Your task to perform on an android device: snooze an email in the gmail app Image 0: 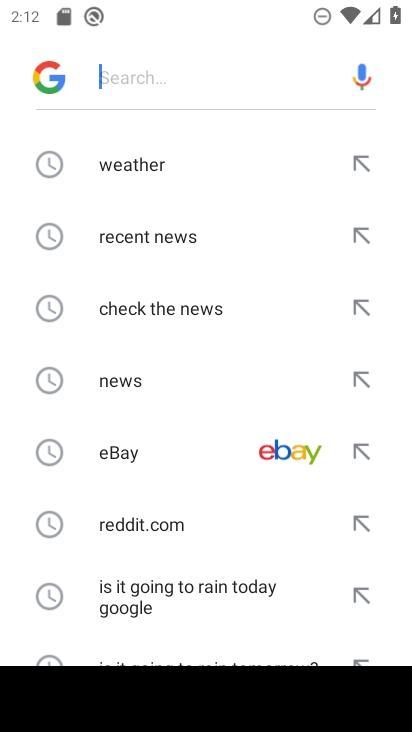
Step 0: click (92, 721)
Your task to perform on an android device: snooze an email in the gmail app Image 1: 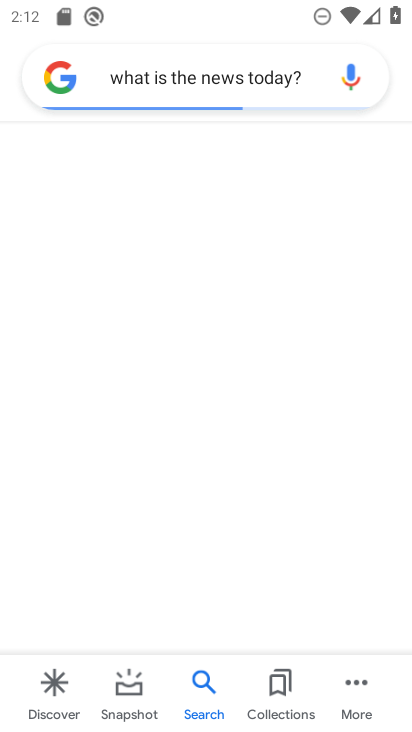
Step 1: drag from (220, 570) to (256, 289)
Your task to perform on an android device: snooze an email in the gmail app Image 2: 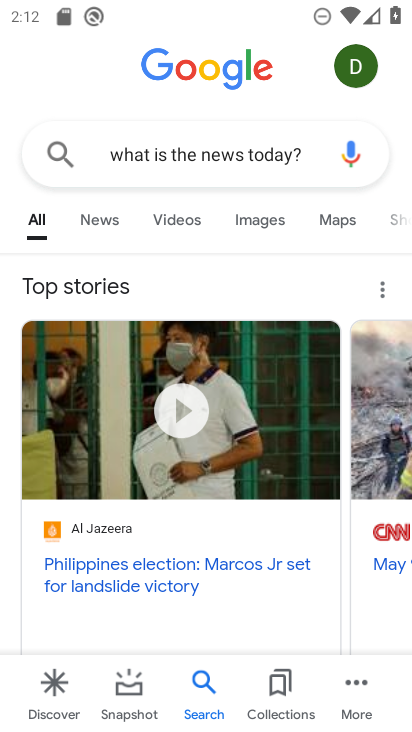
Step 2: drag from (229, 584) to (231, 376)
Your task to perform on an android device: snooze an email in the gmail app Image 3: 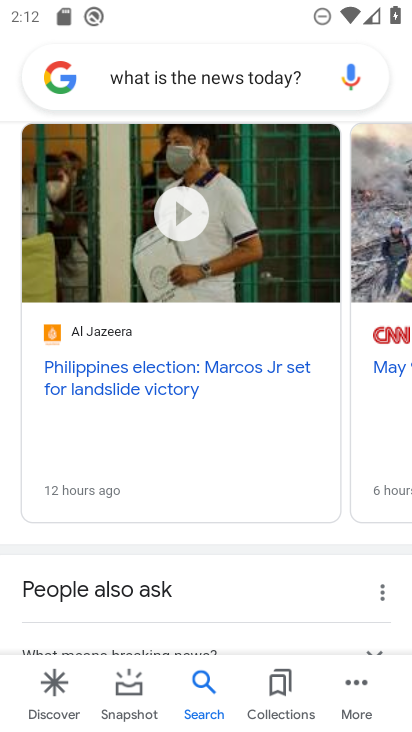
Step 3: drag from (275, 135) to (369, 657)
Your task to perform on an android device: snooze an email in the gmail app Image 4: 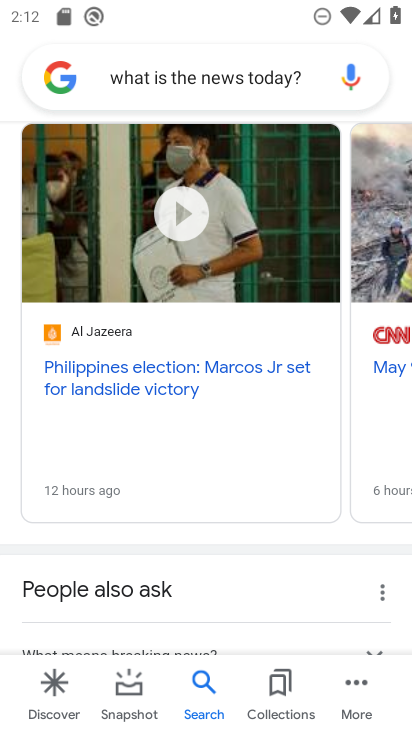
Step 4: press home button
Your task to perform on an android device: snooze an email in the gmail app Image 5: 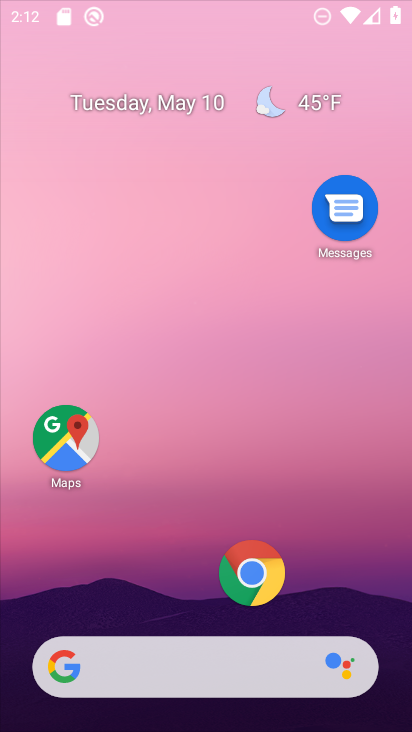
Step 5: drag from (225, 598) to (310, 155)
Your task to perform on an android device: snooze an email in the gmail app Image 6: 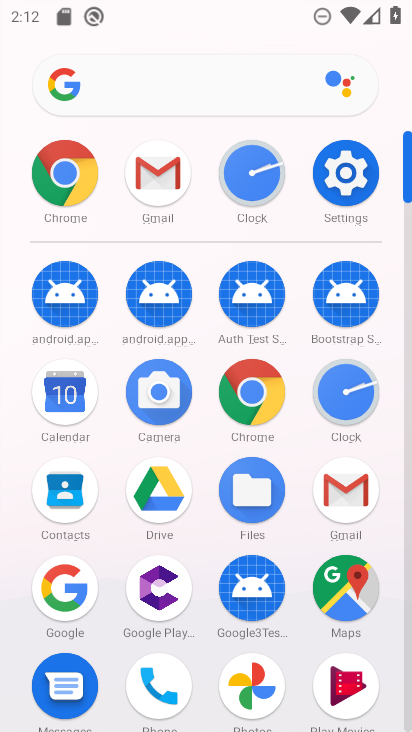
Step 6: drag from (196, 614) to (192, 263)
Your task to perform on an android device: snooze an email in the gmail app Image 7: 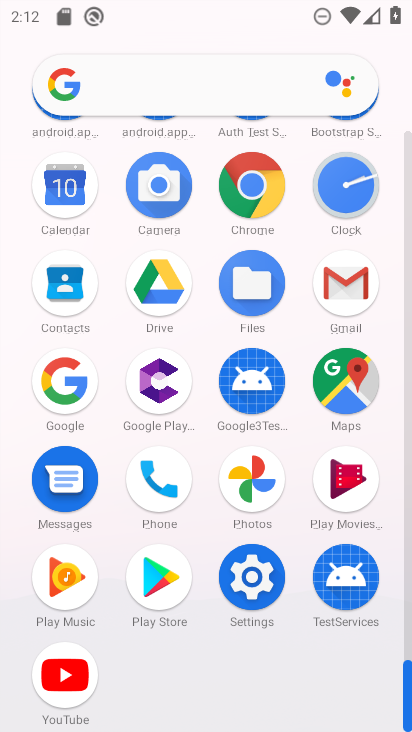
Step 7: click (350, 289)
Your task to perform on an android device: snooze an email in the gmail app Image 8: 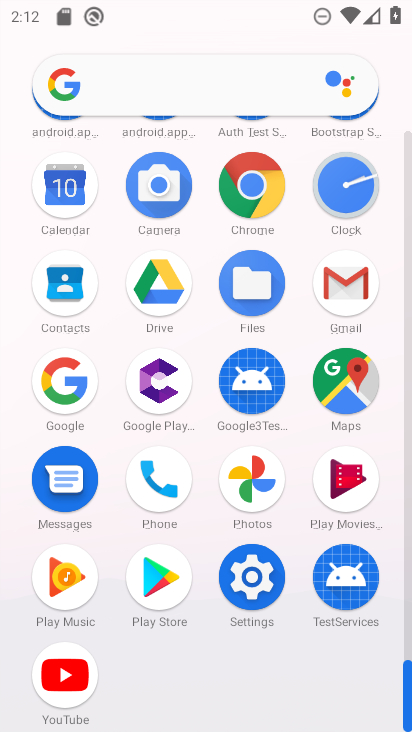
Step 8: click (350, 289)
Your task to perform on an android device: snooze an email in the gmail app Image 9: 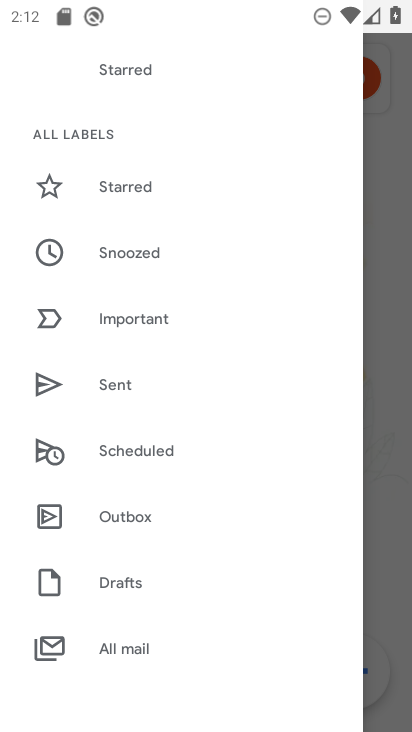
Step 9: drag from (136, 587) to (218, 200)
Your task to perform on an android device: snooze an email in the gmail app Image 10: 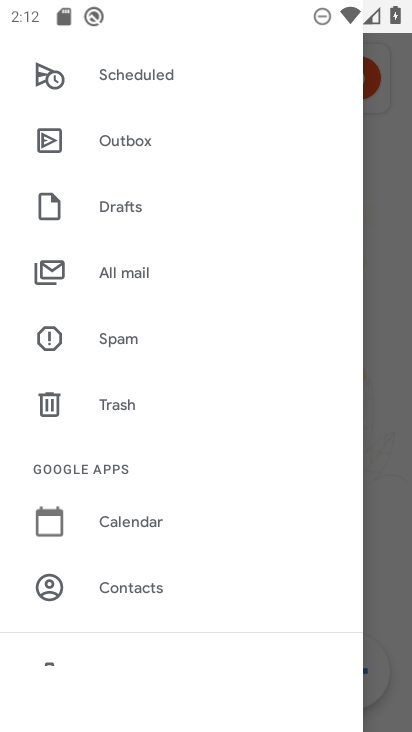
Step 10: drag from (141, 504) to (187, 232)
Your task to perform on an android device: snooze an email in the gmail app Image 11: 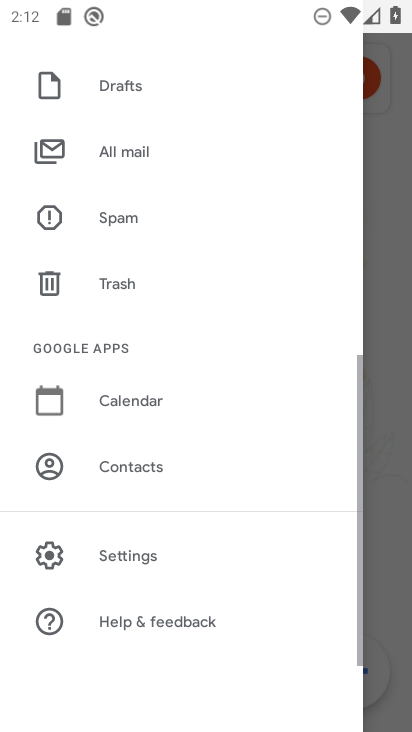
Step 11: click (140, 553)
Your task to perform on an android device: snooze an email in the gmail app Image 12: 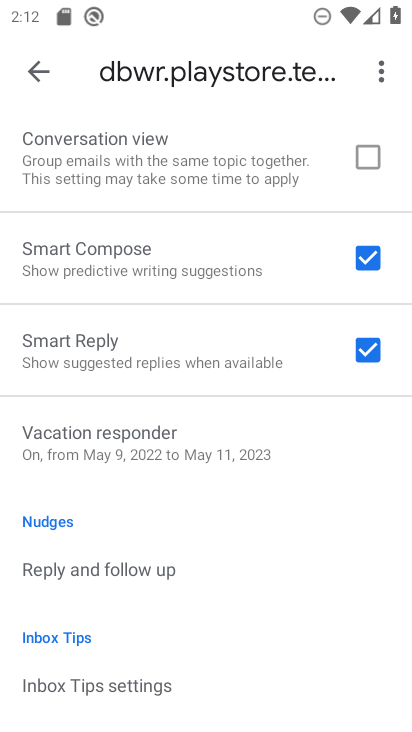
Step 12: drag from (147, 647) to (203, 213)
Your task to perform on an android device: snooze an email in the gmail app Image 13: 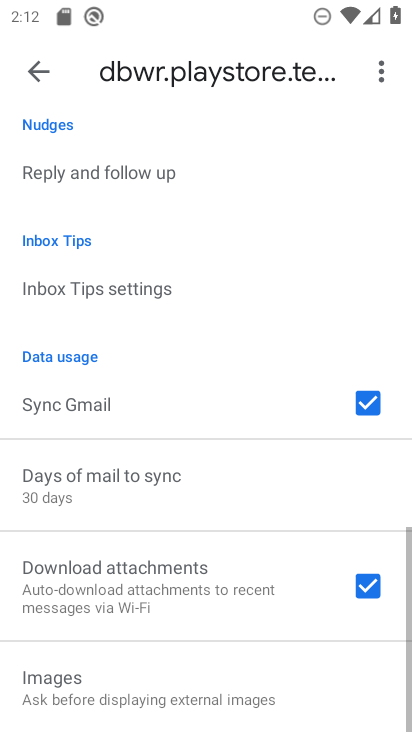
Step 13: drag from (162, 608) to (230, 268)
Your task to perform on an android device: snooze an email in the gmail app Image 14: 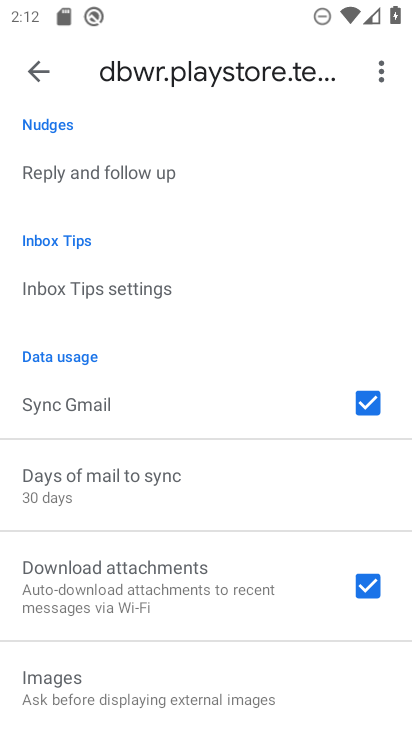
Step 14: drag from (149, 576) to (195, 317)
Your task to perform on an android device: snooze an email in the gmail app Image 15: 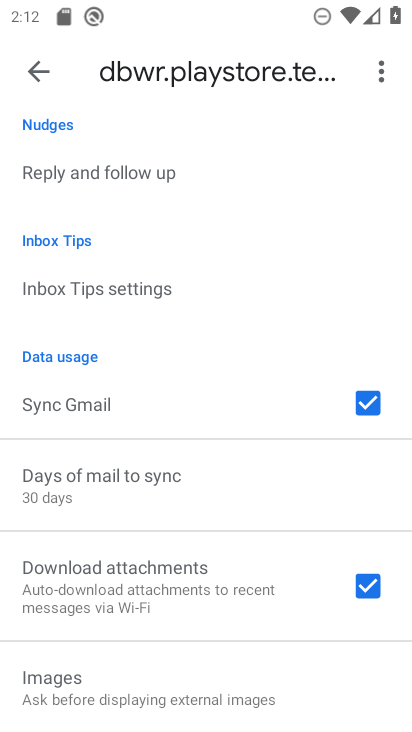
Step 15: drag from (138, 586) to (166, 300)
Your task to perform on an android device: snooze an email in the gmail app Image 16: 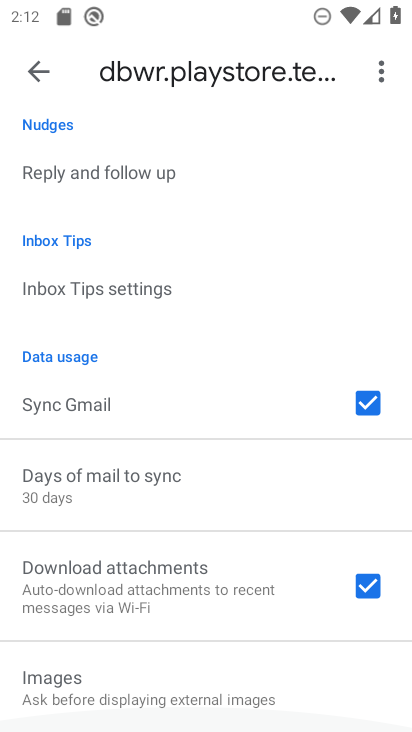
Step 16: drag from (188, 228) to (162, 625)
Your task to perform on an android device: snooze an email in the gmail app Image 17: 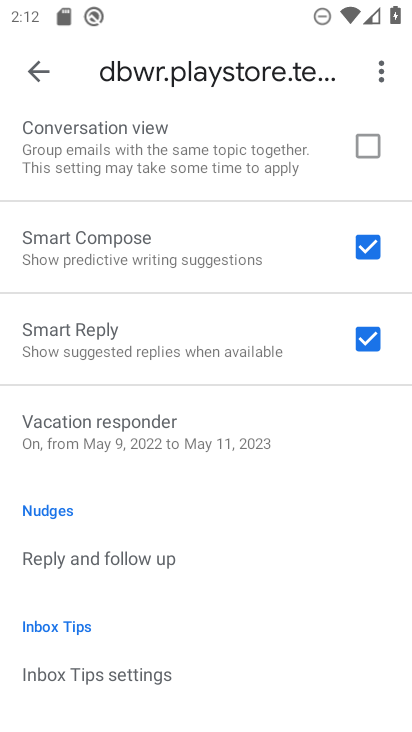
Step 17: drag from (159, 505) to (303, 165)
Your task to perform on an android device: snooze an email in the gmail app Image 18: 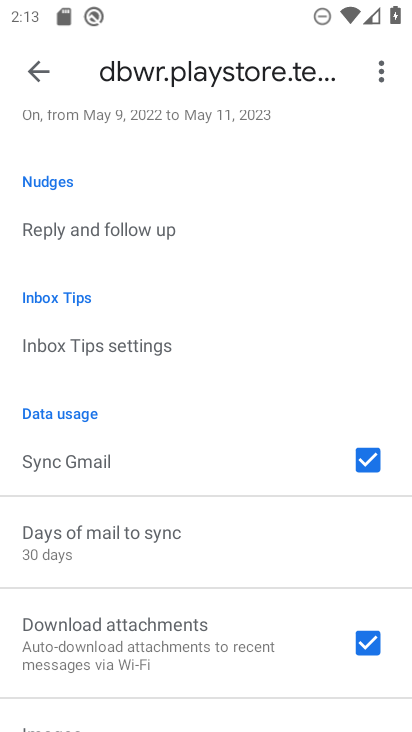
Step 18: drag from (254, 195) to (232, 718)
Your task to perform on an android device: snooze an email in the gmail app Image 19: 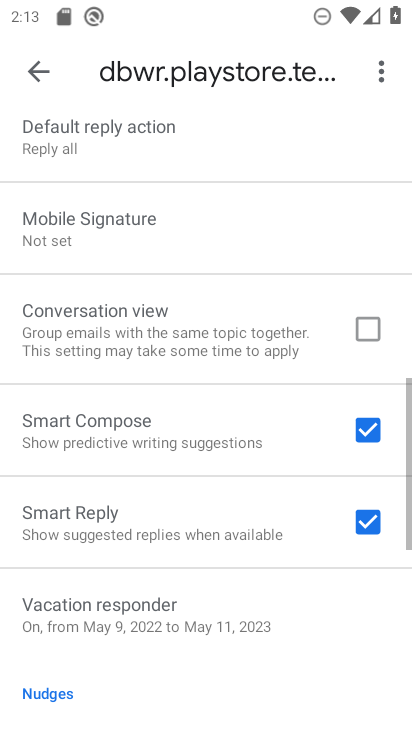
Step 19: drag from (228, 220) to (229, 624)
Your task to perform on an android device: snooze an email in the gmail app Image 20: 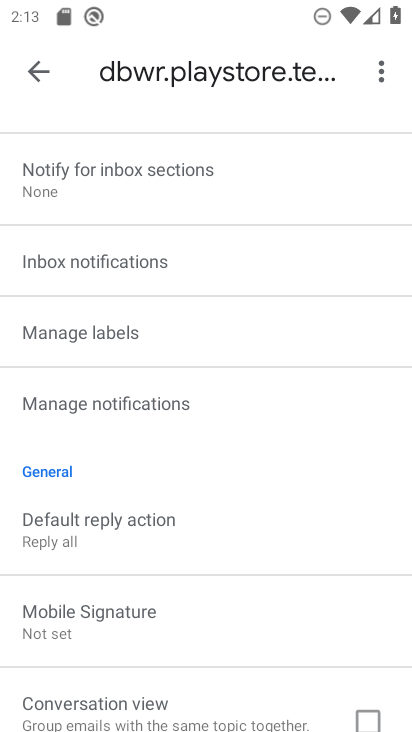
Step 20: drag from (181, 320) to (207, 723)
Your task to perform on an android device: snooze an email in the gmail app Image 21: 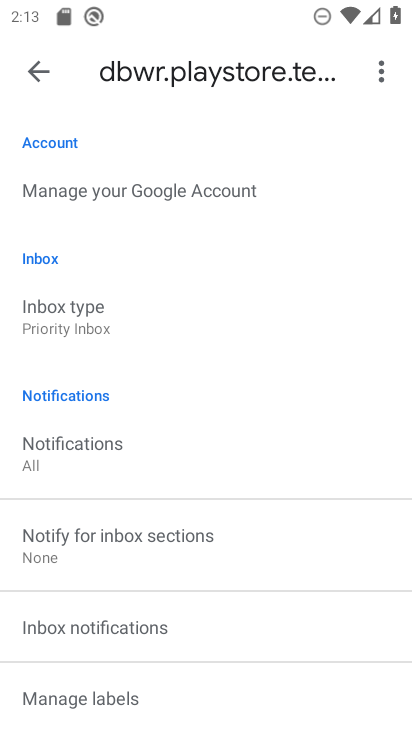
Step 21: drag from (149, 369) to (198, 653)
Your task to perform on an android device: snooze an email in the gmail app Image 22: 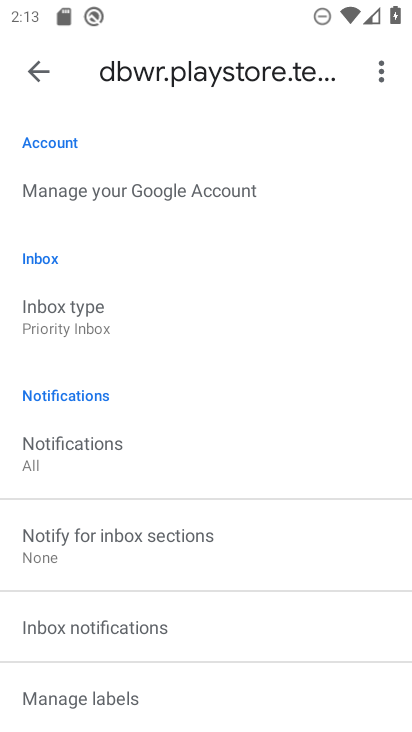
Step 22: drag from (144, 671) to (184, 357)
Your task to perform on an android device: snooze an email in the gmail app Image 23: 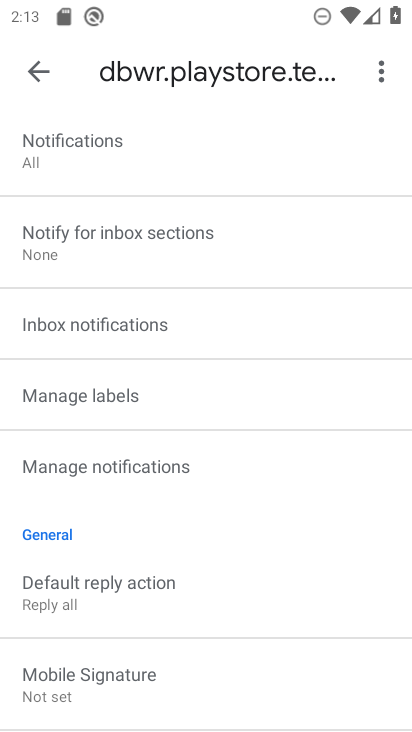
Step 23: click (31, 85)
Your task to perform on an android device: snooze an email in the gmail app Image 24: 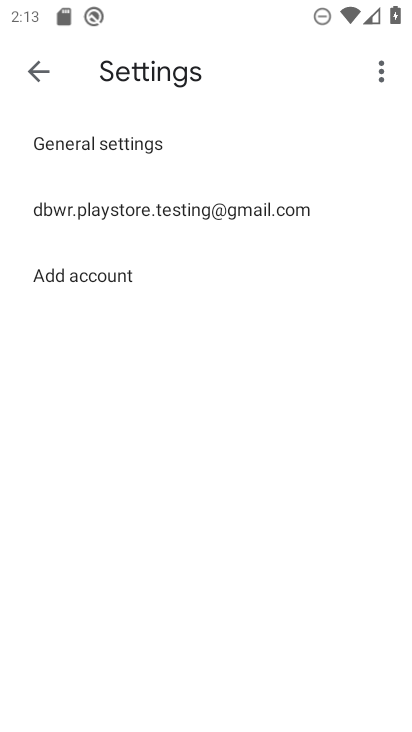
Step 24: click (46, 83)
Your task to perform on an android device: snooze an email in the gmail app Image 25: 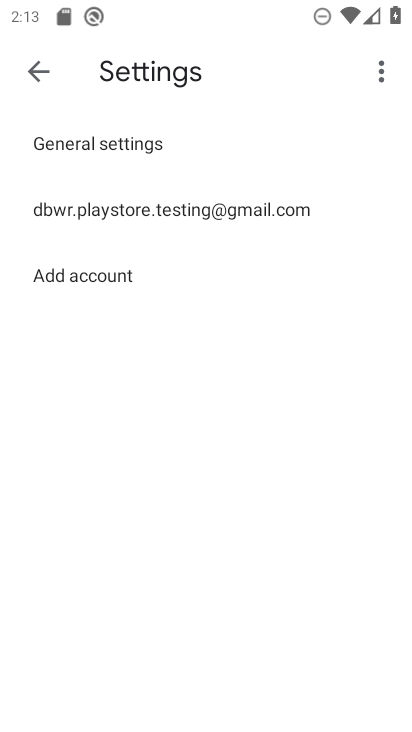
Step 25: click (39, 80)
Your task to perform on an android device: snooze an email in the gmail app Image 26: 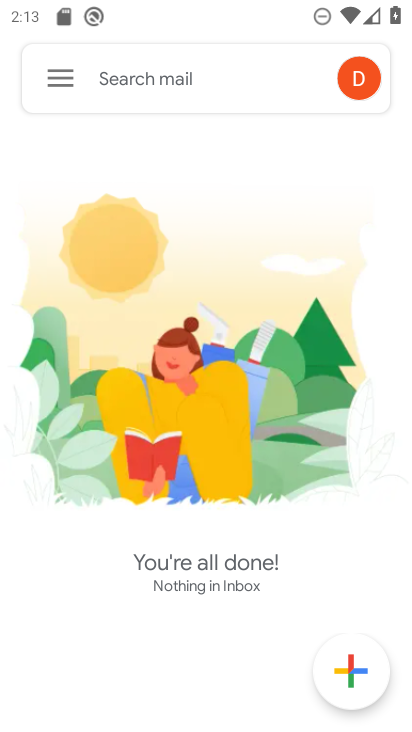
Step 26: click (57, 72)
Your task to perform on an android device: snooze an email in the gmail app Image 27: 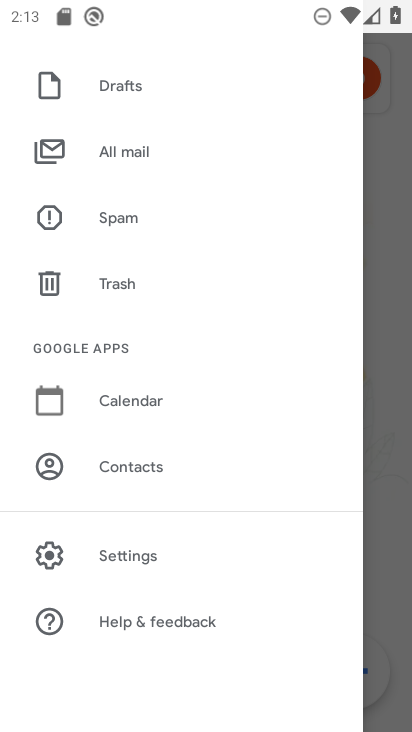
Step 27: click (139, 564)
Your task to perform on an android device: snooze an email in the gmail app Image 28: 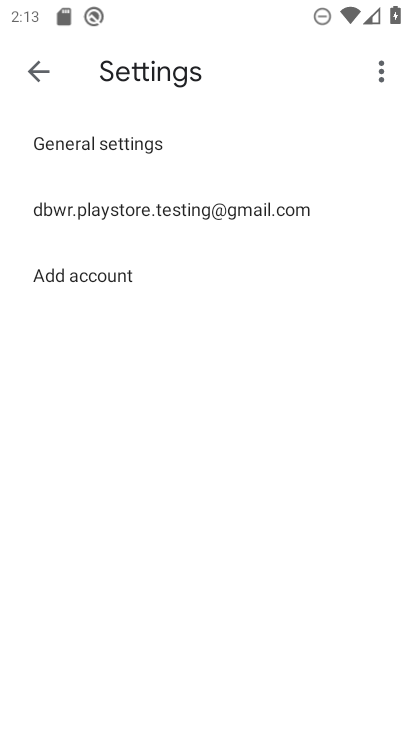
Step 28: click (35, 72)
Your task to perform on an android device: snooze an email in the gmail app Image 29: 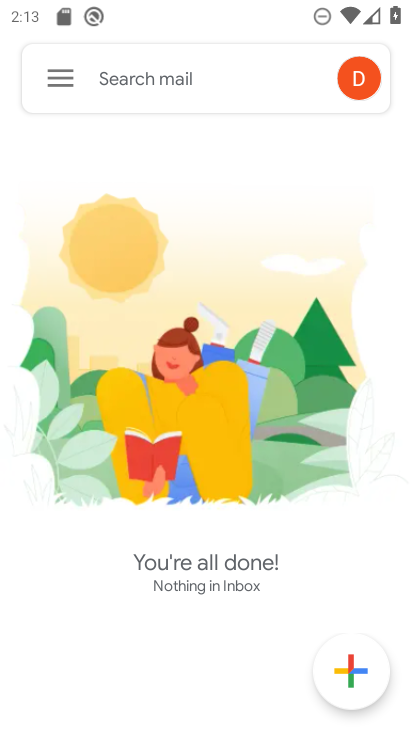
Step 29: click (38, 76)
Your task to perform on an android device: snooze an email in the gmail app Image 30: 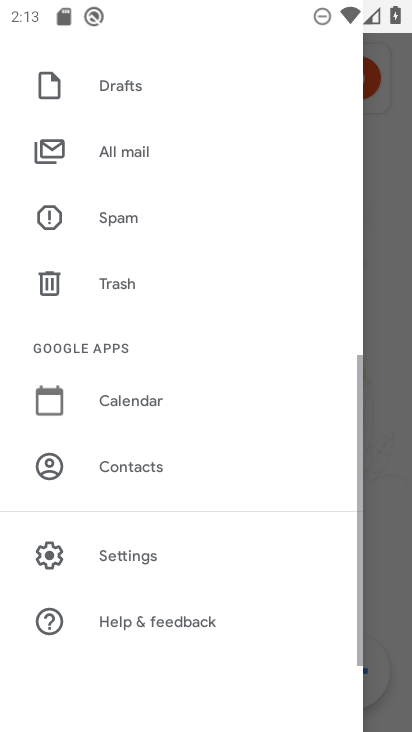
Step 30: drag from (186, 134) to (211, 725)
Your task to perform on an android device: snooze an email in the gmail app Image 31: 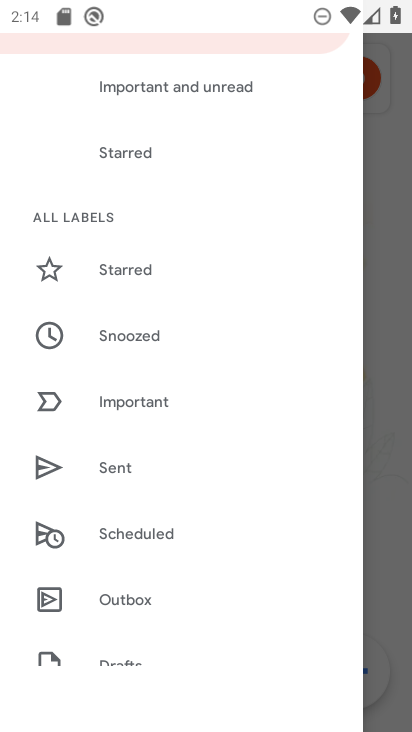
Step 31: click (132, 334)
Your task to perform on an android device: snooze an email in the gmail app Image 32: 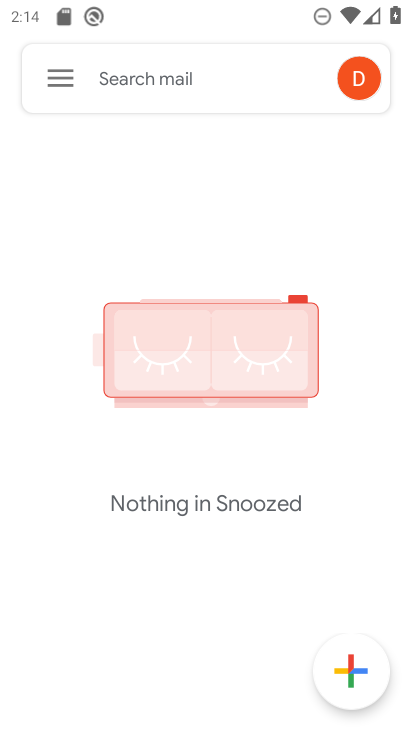
Step 32: task complete